Your task to perform on an android device: change your default location settings in chrome Image 0: 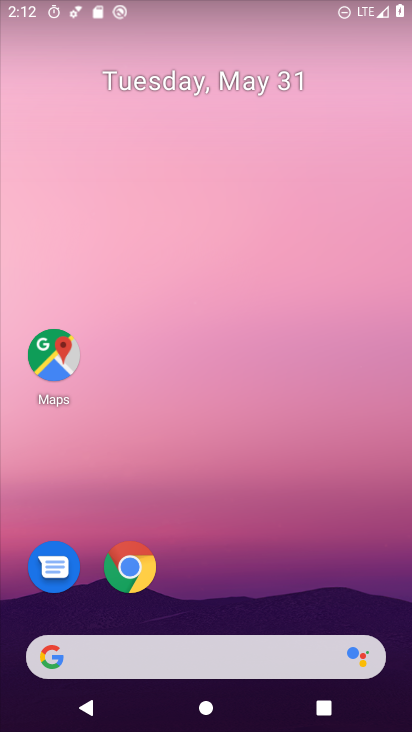
Step 0: click (135, 573)
Your task to perform on an android device: change your default location settings in chrome Image 1: 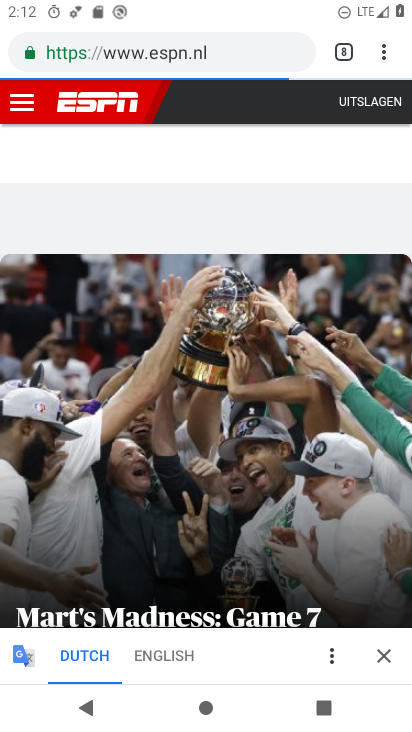
Step 1: click (379, 61)
Your task to perform on an android device: change your default location settings in chrome Image 2: 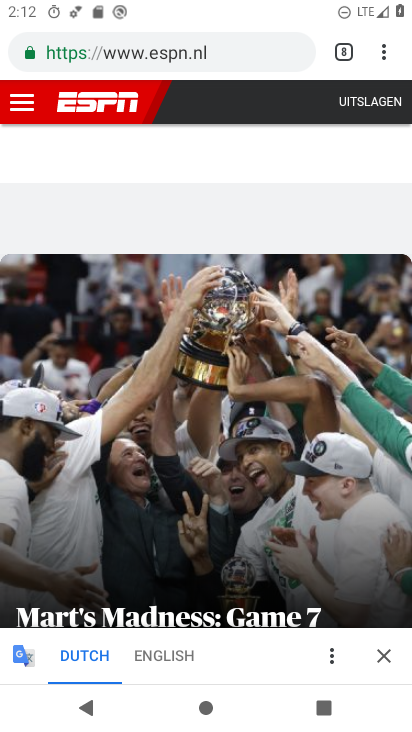
Step 2: click (373, 45)
Your task to perform on an android device: change your default location settings in chrome Image 3: 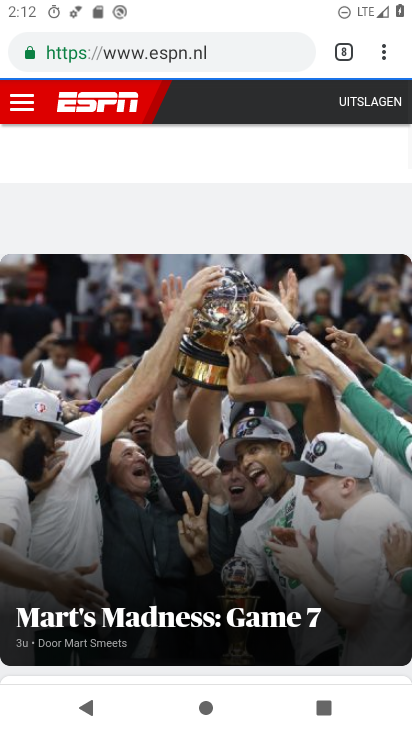
Step 3: click (375, 53)
Your task to perform on an android device: change your default location settings in chrome Image 4: 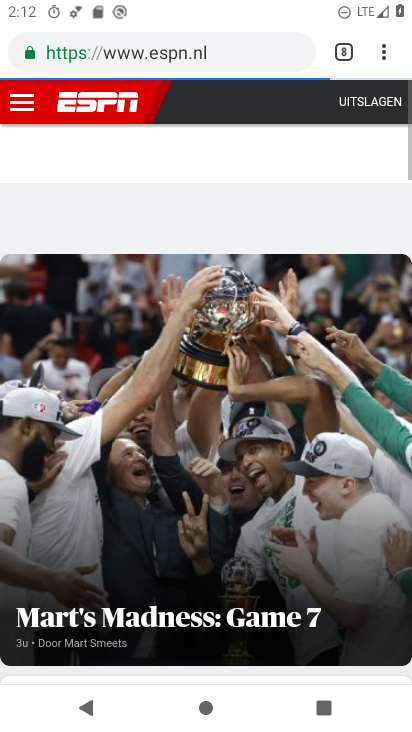
Step 4: drag from (376, 54) to (229, 618)
Your task to perform on an android device: change your default location settings in chrome Image 5: 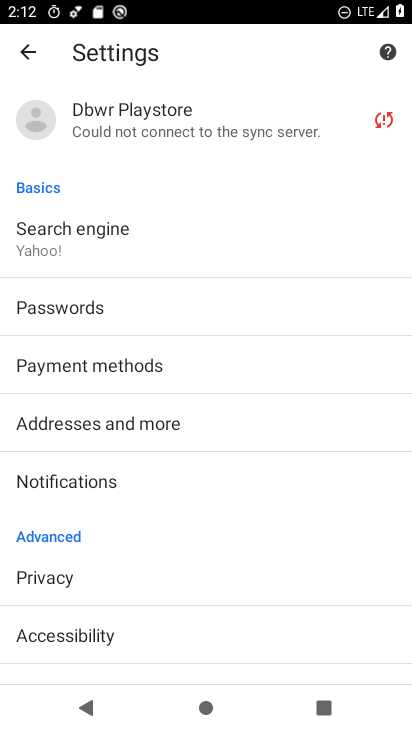
Step 5: drag from (210, 626) to (226, 359)
Your task to perform on an android device: change your default location settings in chrome Image 6: 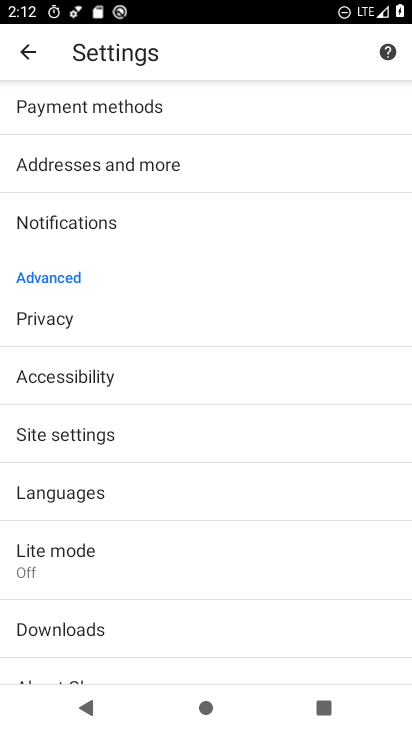
Step 6: click (147, 450)
Your task to perform on an android device: change your default location settings in chrome Image 7: 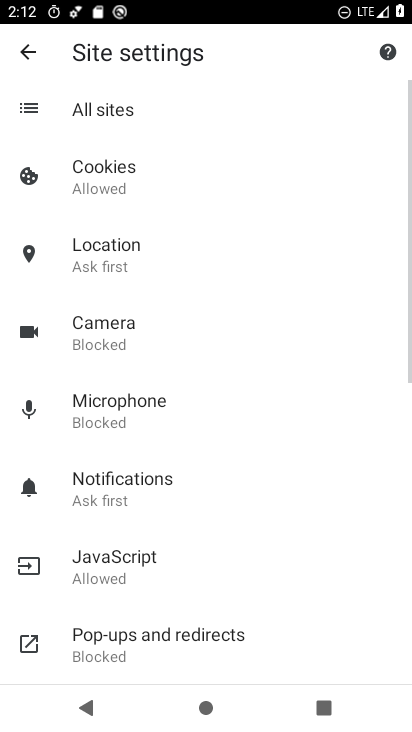
Step 7: click (127, 243)
Your task to perform on an android device: change your default location settings in chrome Image 8: 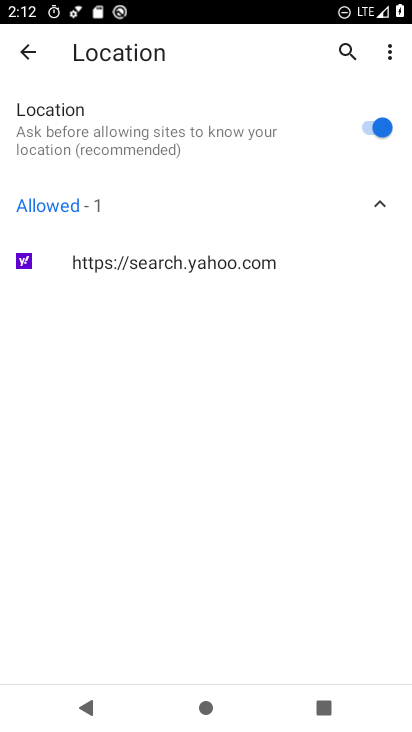
Step 8: click (368, 127)
Your task to perform on an android device: change your default location settings in chrome Image 9: 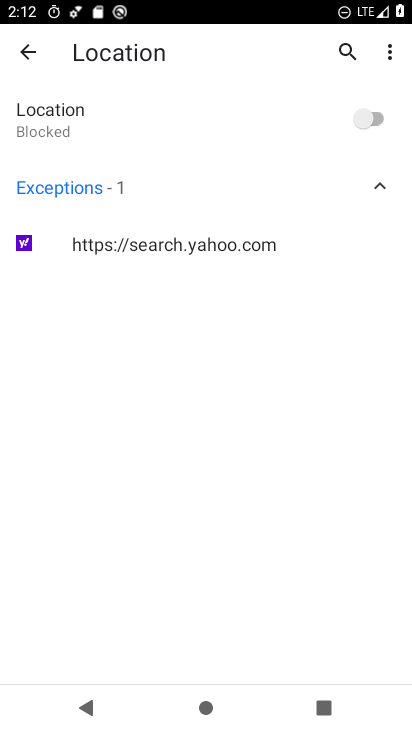
Step 9: task complete